Your task to perform on an android device: make emails show in primary in the gmail app Image 0: 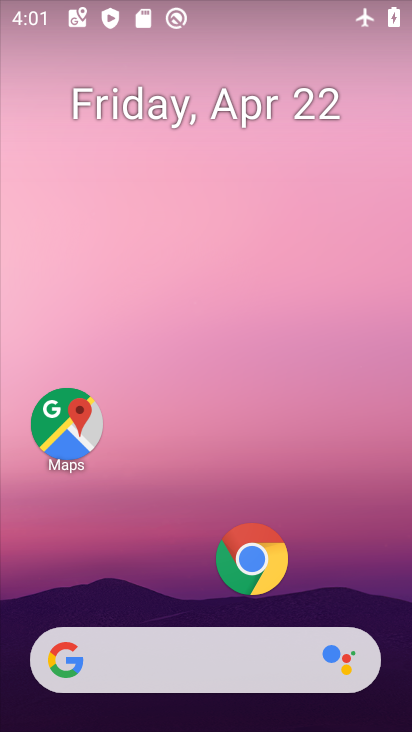
Step 0: drag from (164, 545) to (274, 27)
Your task to perform on an android device: make emails show in primary in the gmail app Image 1: 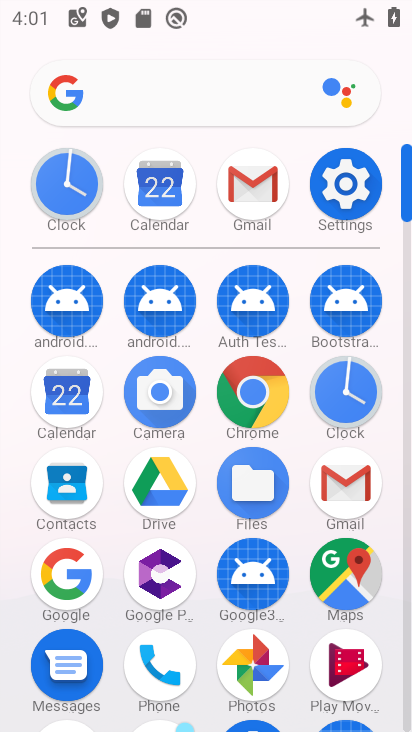
Step 1: click (344, 485)
Your task to perform on an android device: make emails show in primary in the gmail app Image 2: 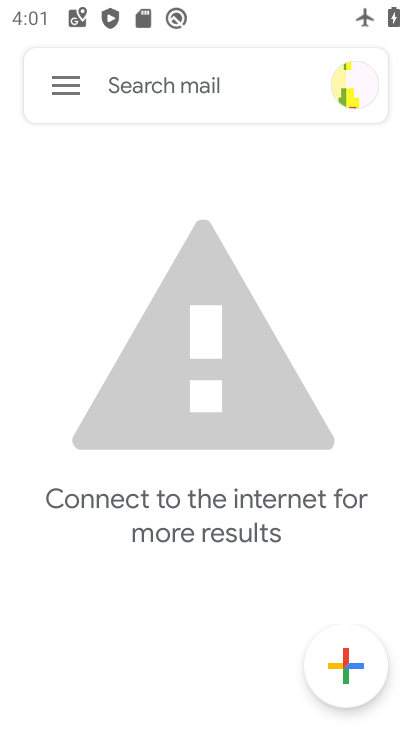
Step 2: click (76, 83)
Your task to perform on an android device: make emails show in primary in the gmail app Image 3: 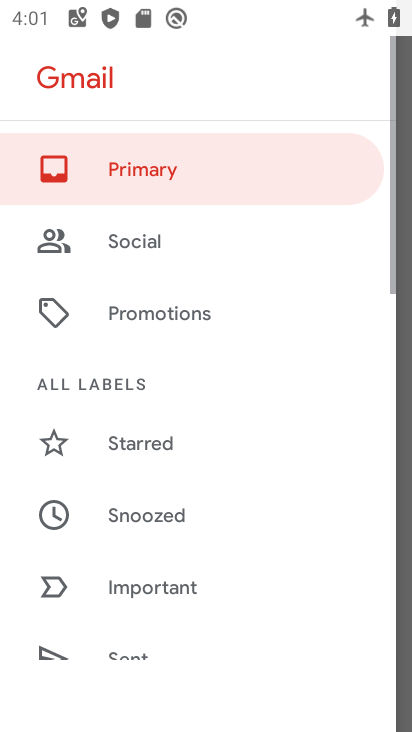
Step 3: drag from (104, 626) to (155, 222)
Your task to perform on an android device: make emails show in primary in the gmail app Image 4: 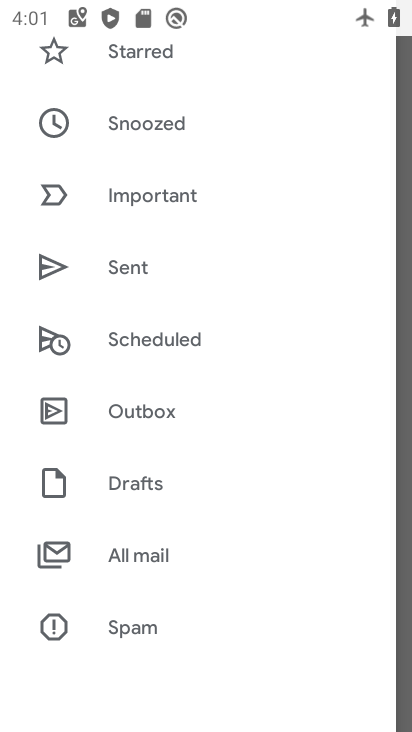
Step 4: drag from (102, 593) to (198, 230)
Your task to perform on an android device: make emails show in primary in the gmail app Image 5: 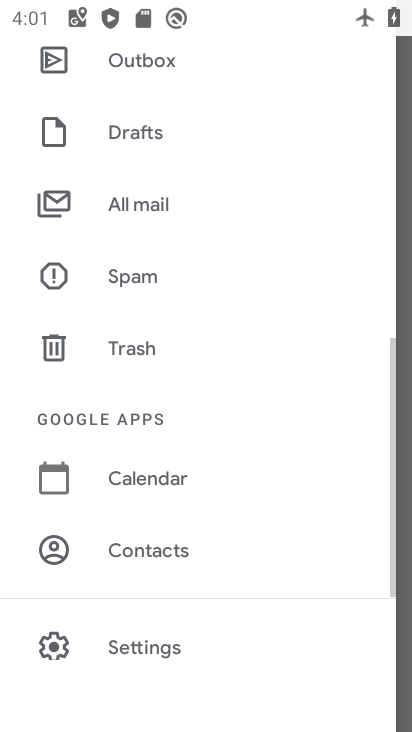
Step 5: drag from (115, 600) to (143, 258)
Your task to perform on an android device: make emails show in primary in the gmail app Image 6: 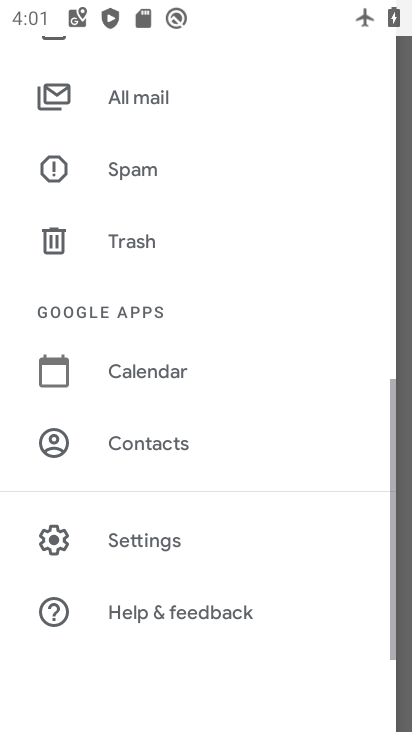
Step 6: click (77, 527)
Your task to perform on an android device: make emails show in primary in the gmail app Image 7: 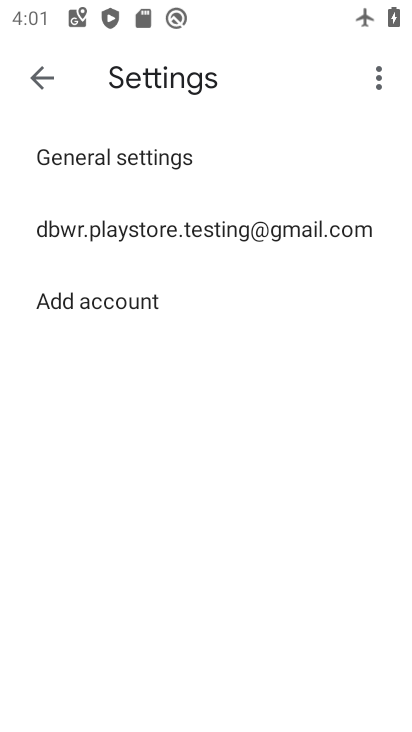
Step 7: click (124, 225)
Your task to perform on an android device: make emails show in primary in the gmail app Image 8: 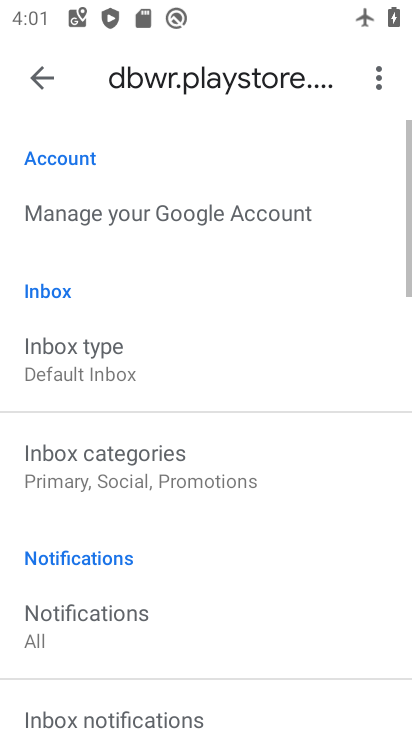
Step 8: click (109, 356)
Your task to perform on an android device: make emails show in primary in the gmail app Image 9: 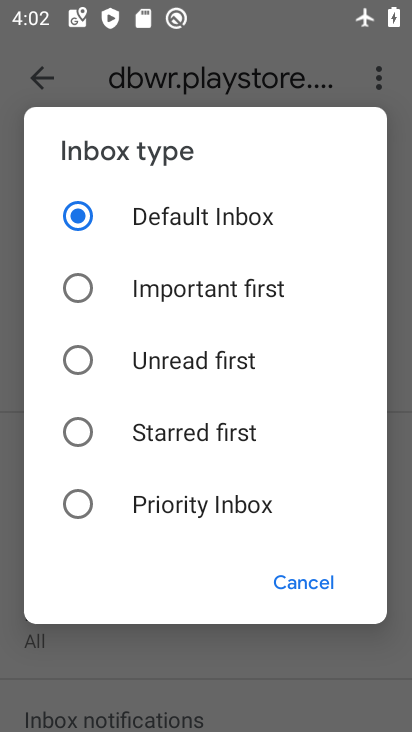
Step 9: click (284, 568)
Your task to perform on an android device: make emails show in primary in the gmail app Image 10: 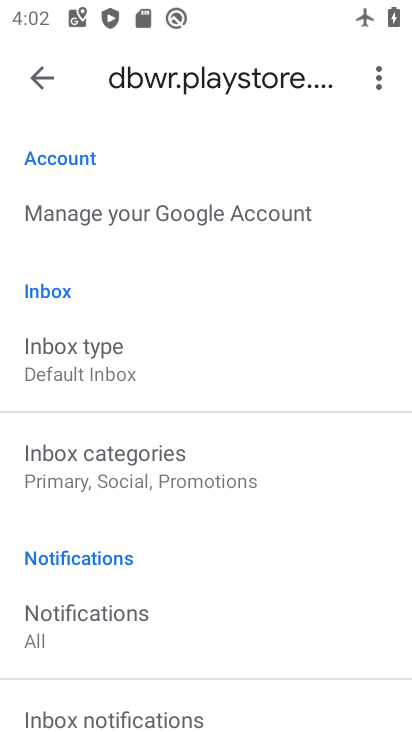
Step 10: click (97, 477)
Your task to perform on an android device: make emails show in primary in the gmail app Image 11: 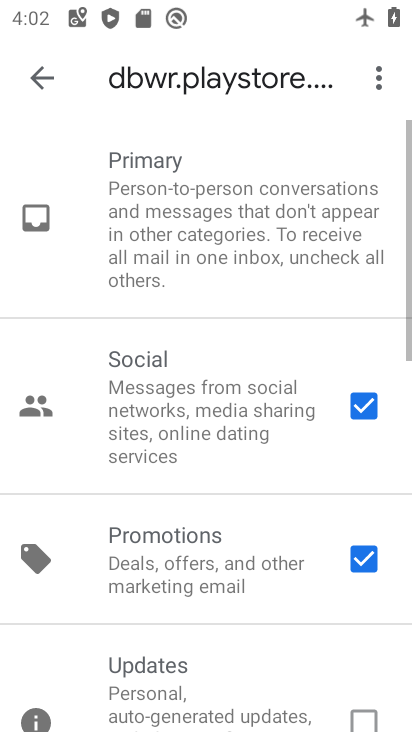
Step 11: click (342, 399)
Your task to perform on an android device: make emails show in primary in the gmail app Image 12: 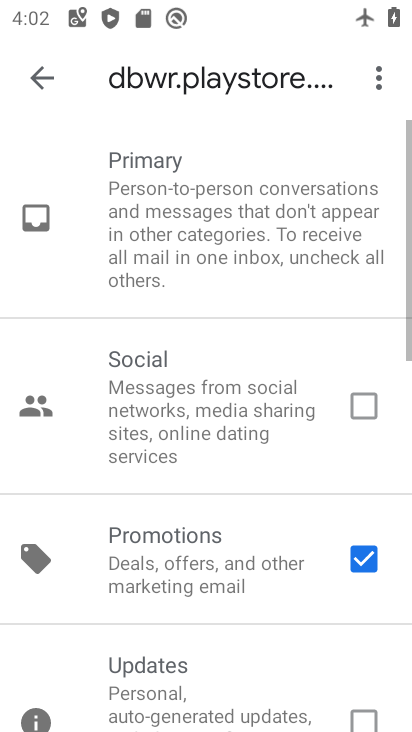
Step 12: click (349, 559)
Your task to perform on an android device: make emails show in primary in the gmail app Image 13: 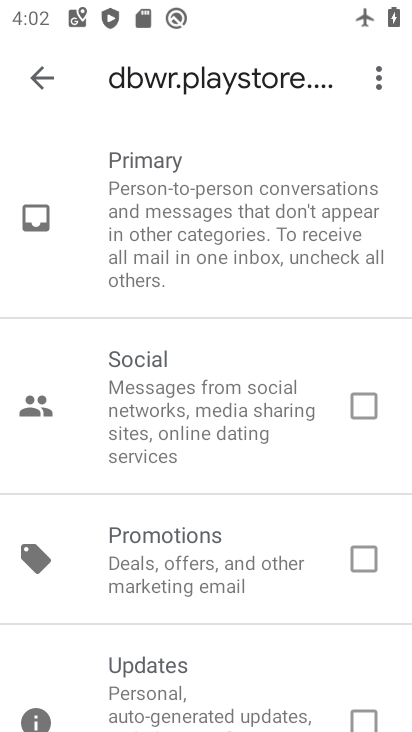
Step 13: task complete